Your task to perform on an android device: Open wifi settings Image 0: 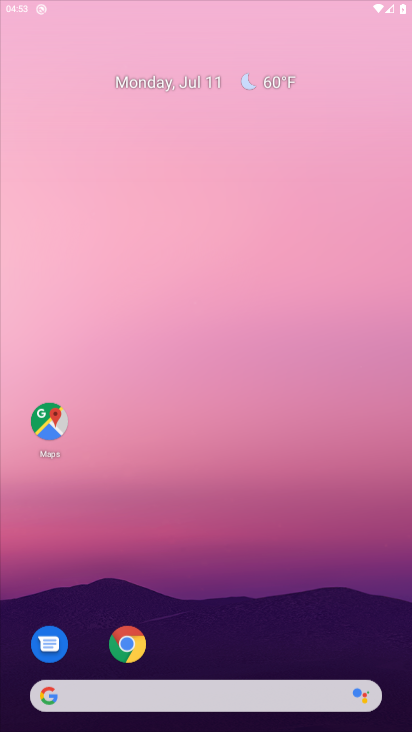
Step 0: drag from (169, 674) to (205, 221)
Your task to perform on an android device: Open wifi settings Image 1: 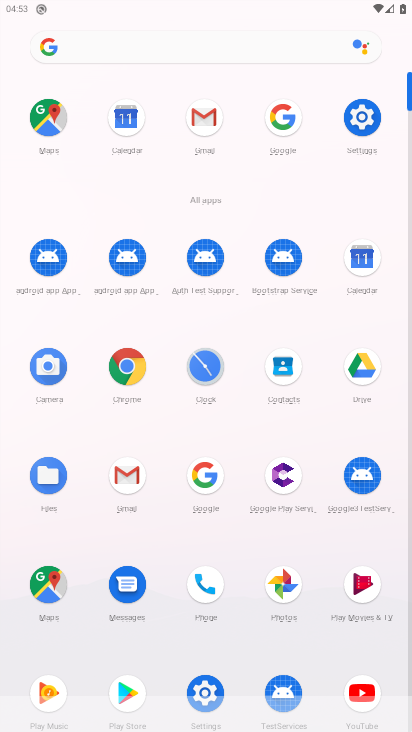
Step 1: click (369, 121)
Your task to perform on an android device: Open wifi settings Image 2: 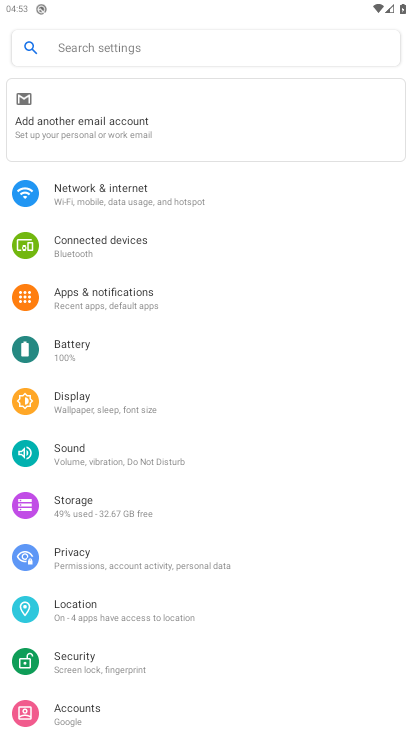
Step 2: click (127, 186)
Your task to perform on an android device: Open wifi settings Image 3: 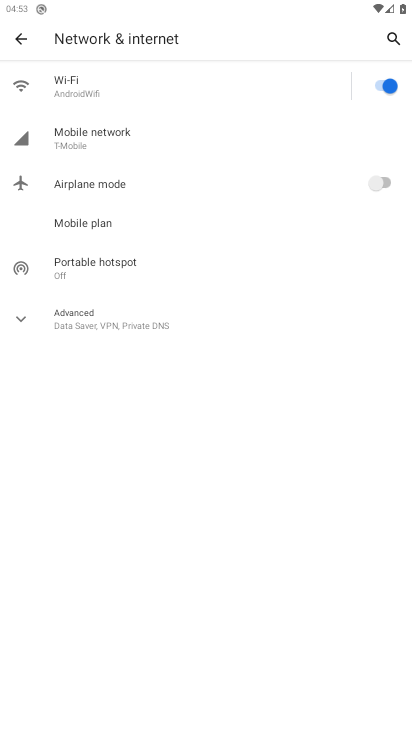
Step 3: click (165, 94)
Your task to perform on an android device: Open wifi settings Image 4: 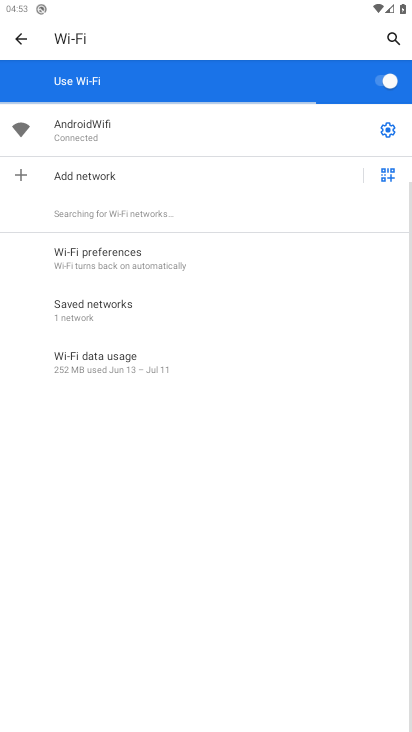
Step 4: click (389, 128)
Your task to perform on an android device: Open wifi settings Image 5: 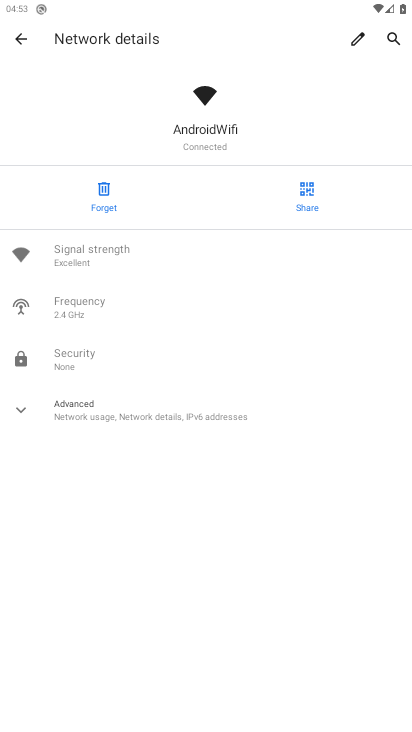
Step 5: click (151, 422)
Your task to perform on an android device: Open wifi settings Image 6: 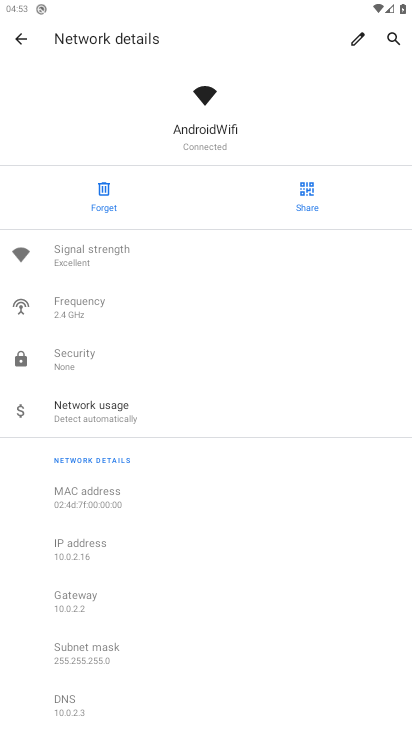
Step 6: task complete